Your task to perform on an android device: Find coffee shops on Maps Image 0: 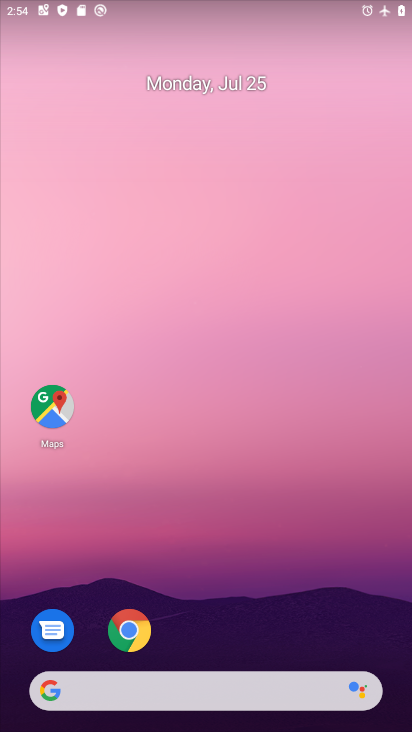
Step 0: click (69, 424)
Your task to perform on an android device: Find coffee shops on Maps Image 1: 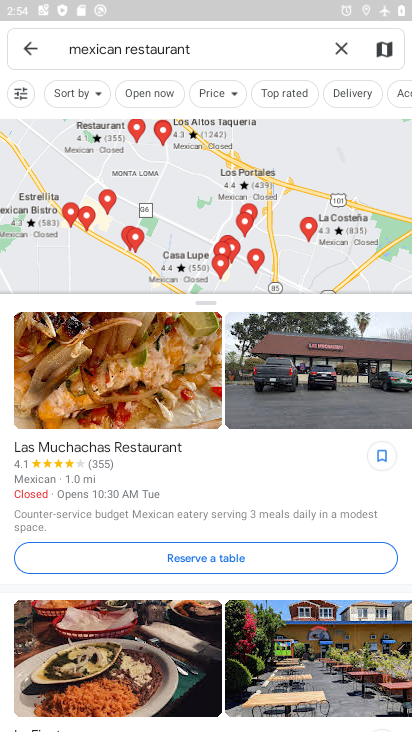
Step 1: click (336, 45)
Your task to perform on an android device: Find coffee shops on Maps Image 2: 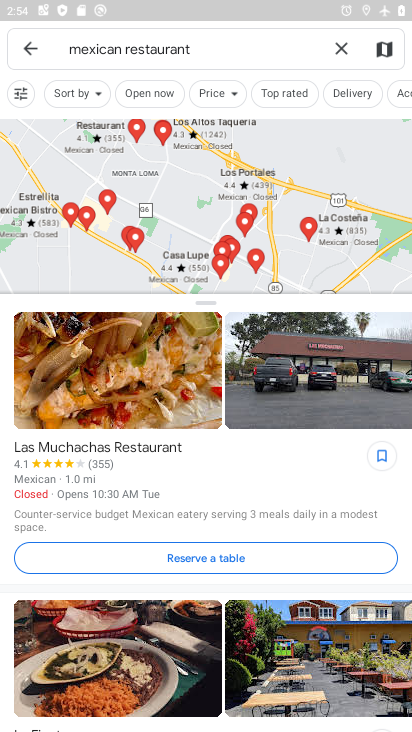
Step 2: click (336, 45)
Your task to perform on an android device: Find coffee shops on Maps Image 3: 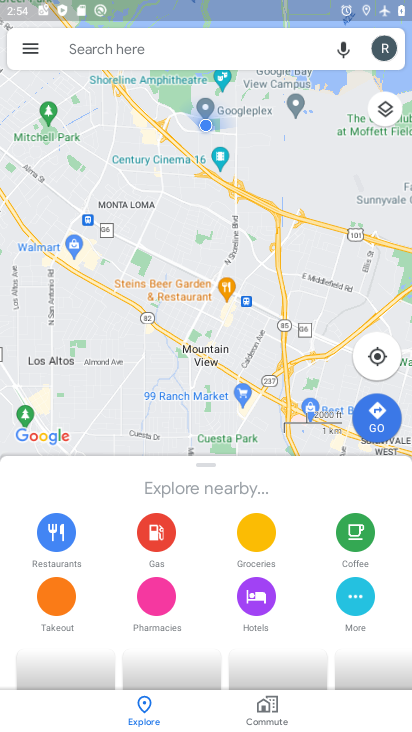
Step 3: click (285, 45)
Your task to perform on an android device: Find coffee shops on Maps Image 4: 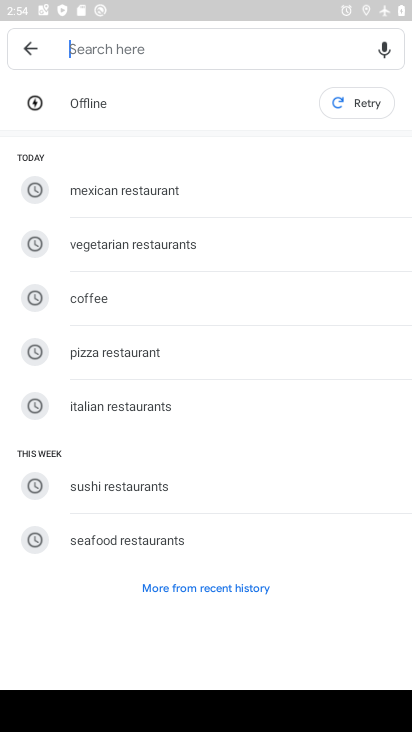
Step 4: click (134, 296)
Your task to perform on an android device: Find coffee shops on Maps Image 5: 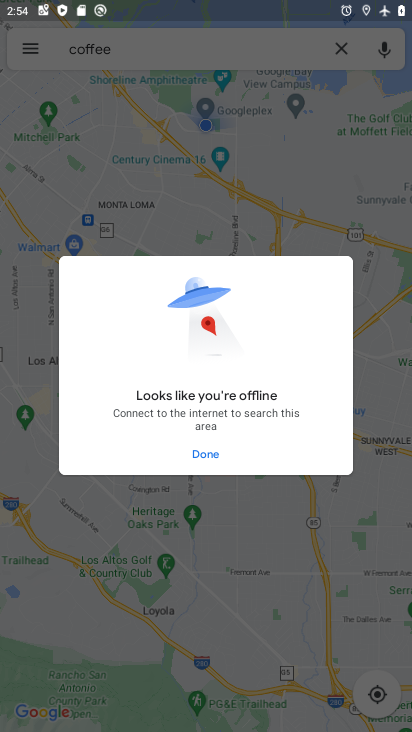
Step 5: task complete